Your task to perform on an android device: check data usage Image 0: 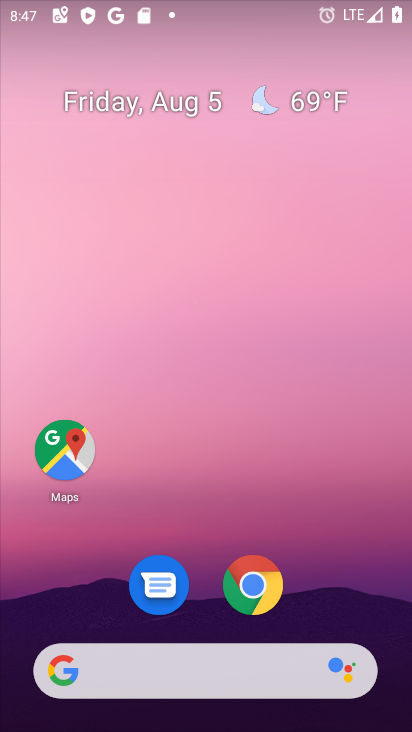
Step 0: drag from (336, 565) to (348, 10)
Your task to perform on an android device: check data usage Image 1: 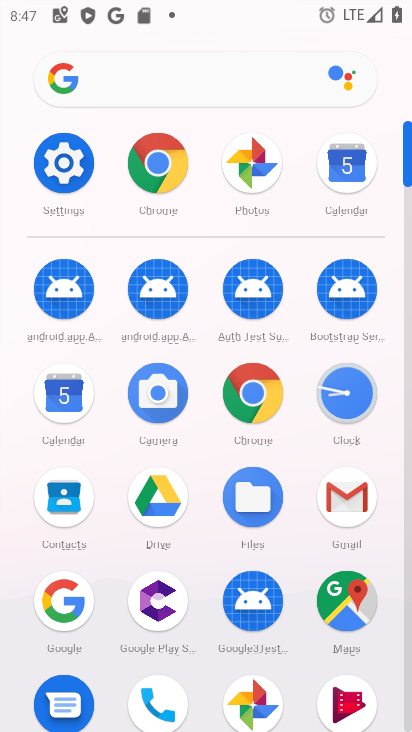
Step 1: click (67, 164)
Your task to perform on an android device: check data usage Image 2: 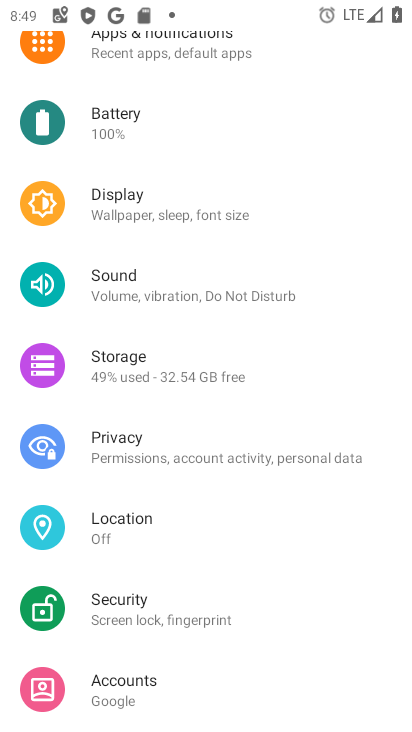
Step 2: drag from (220, 177) to (205, 607)
Your task to perform on an android device: check data usage Image 3: 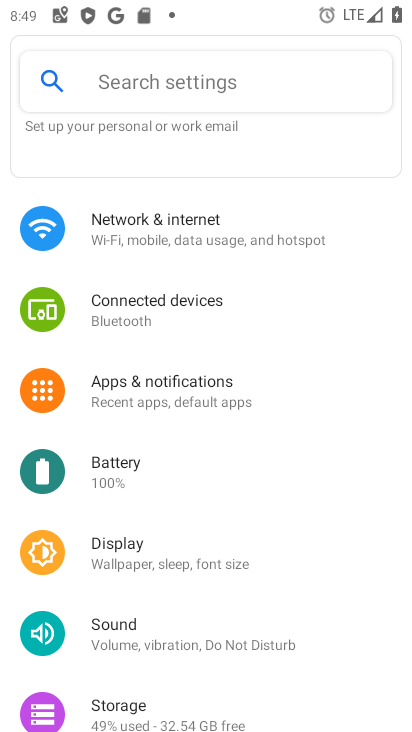
Step 3: click (204, 237)
Your task to perform on an android device: check data usage Image 4: 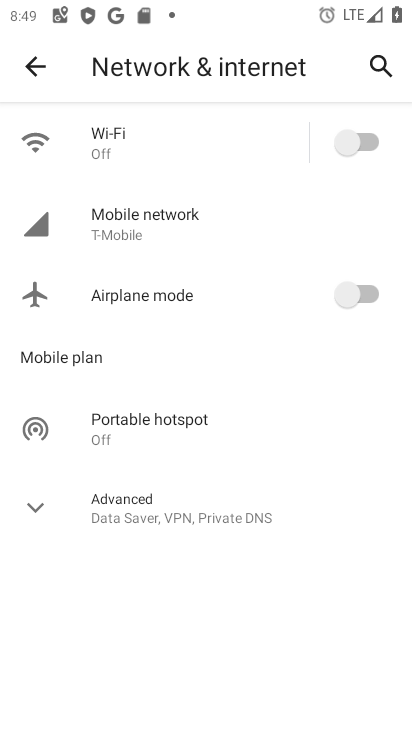
Step 4: click (188, 222)
Your task to perform on an android device: check data usage Image 5: 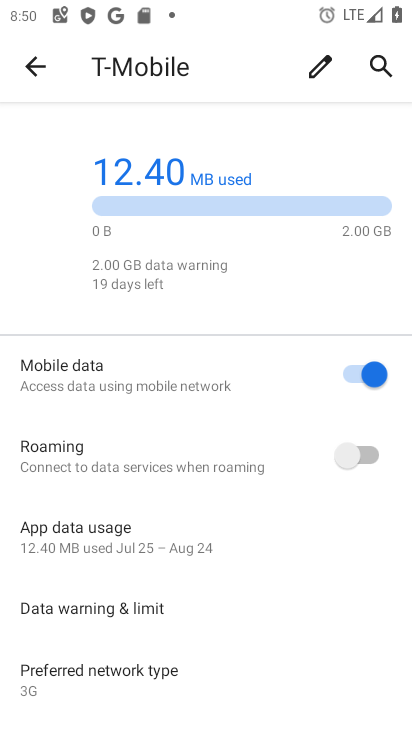
Step 5: task complete